Your task to perform on an android device: delete the emails in spam in the gmail app Image 0: 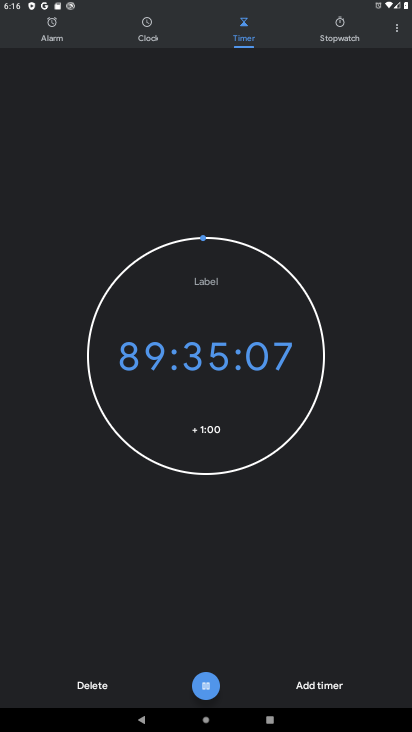
Step 0: press home button
Your task to perform on an android device: delete the emails in spam in the gmail app Image 1: 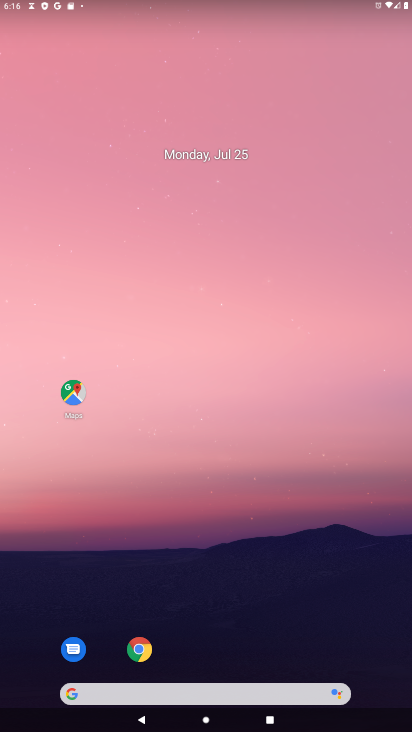
Step 1: drag from (266, 521) to (290, 118)
Your task to perform on an android device: delete the emails in spam in the gmail app Image 2: 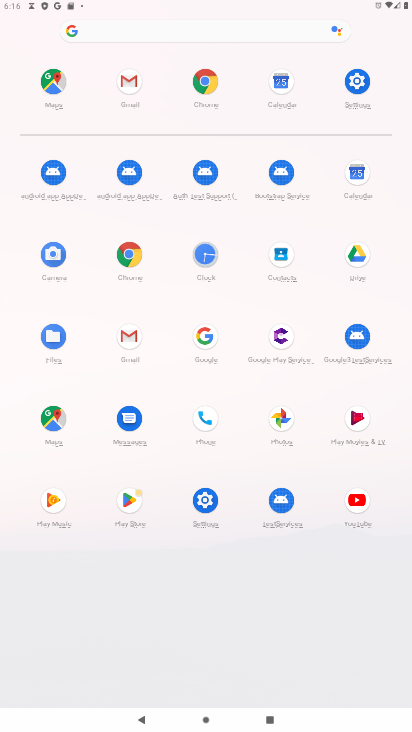
Step 2: click (134, 337)
Your task to perform on an android device: delete the emails in spam in the gmail app Image 3: 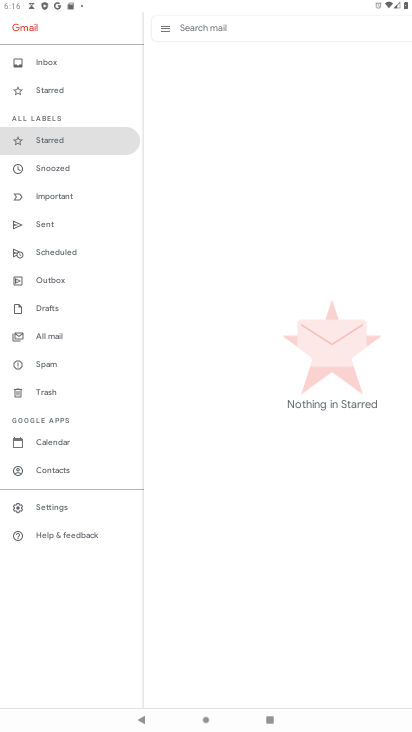
Step 3: click (50, 361)
Your task to perform on an android device: delete the emails in spam in the gmail app Image 4: 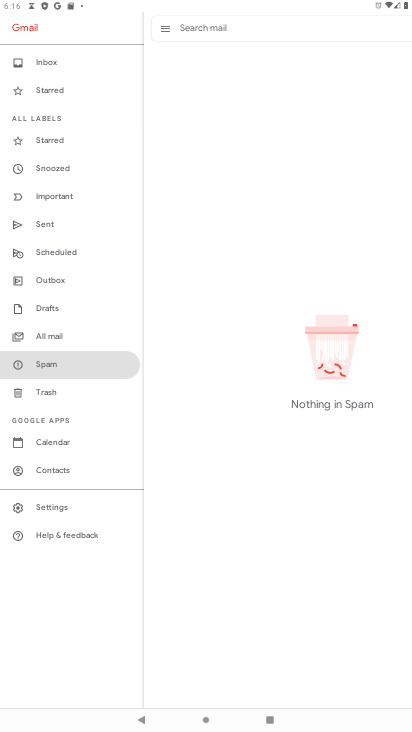
Step 4: task complete